Your task to perform on an android device: Turn on the flashlight Image 0: 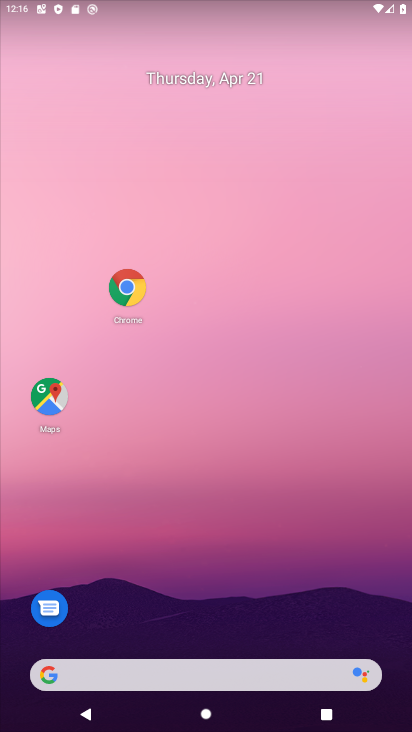
Step 0: drag from (308, 481) to (111, 69)
Your task to perform on an android device: Turn on the flashlight Image 1: 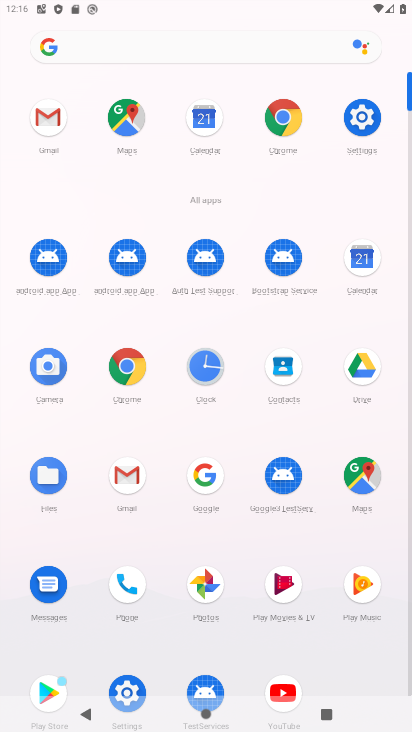
Step 1: click (356, 116)
Your task to perform on an android device: Turn on the flashlight Image 2: 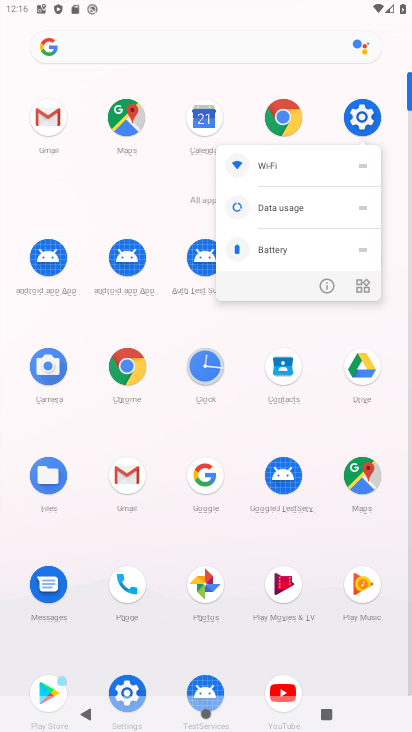
Step 2: click (359, 116)
Your task to perform on an android device: Turn on the flashlight Image 3: 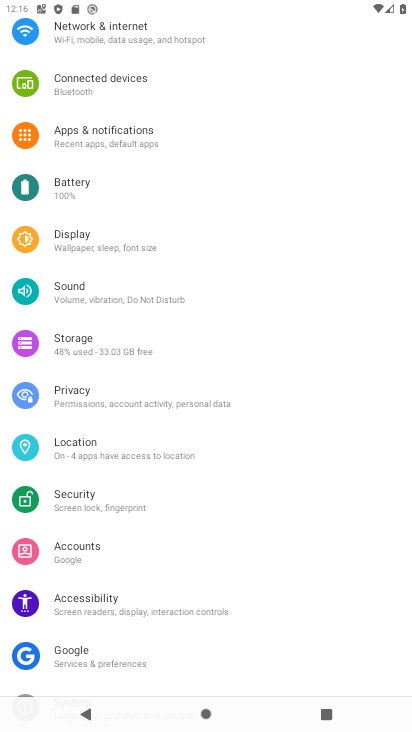
Step 3: drag from (139, 124) to (126, 367)
Your task to perform on an android device: Turn on the flashlight Image 4: 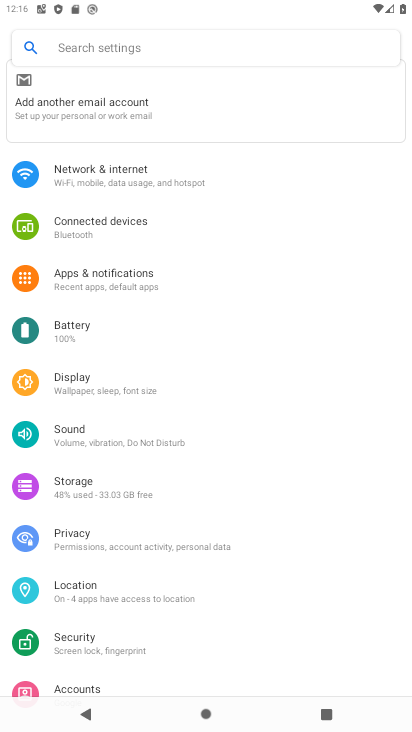
Step 4: click (171, 44)
Your task to perform on an android device: Turn on the flashlight Image 5: 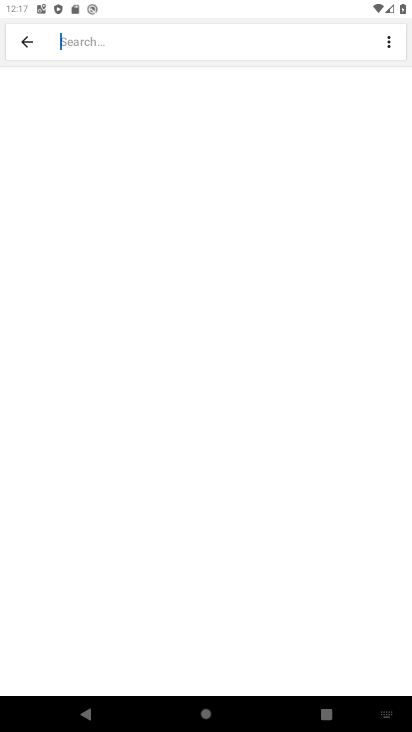
Step 5: type "flashlight"
Your task to perform on an android device: Turn on the flashlight Image 6: 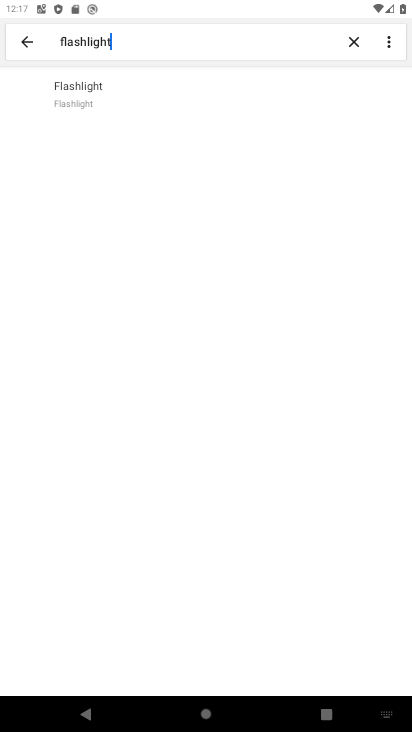
Step 6: click (98, 101)
Your task to perform on an android device: Turn on the flashlight Image 7: 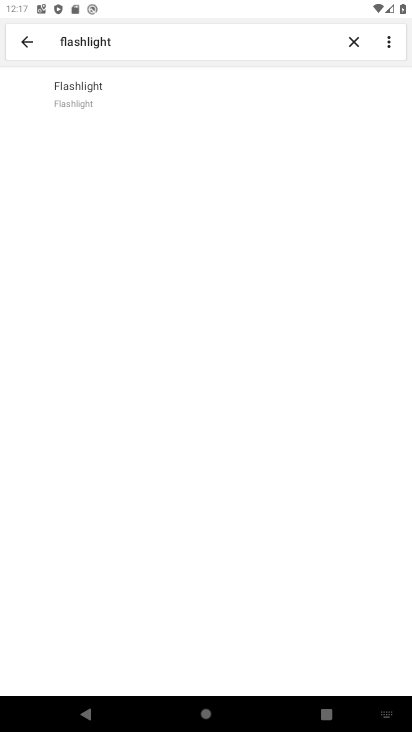
Step 7: click (101, 99)
Your task to perform on an android device: Turn on the flashlight Image 8: 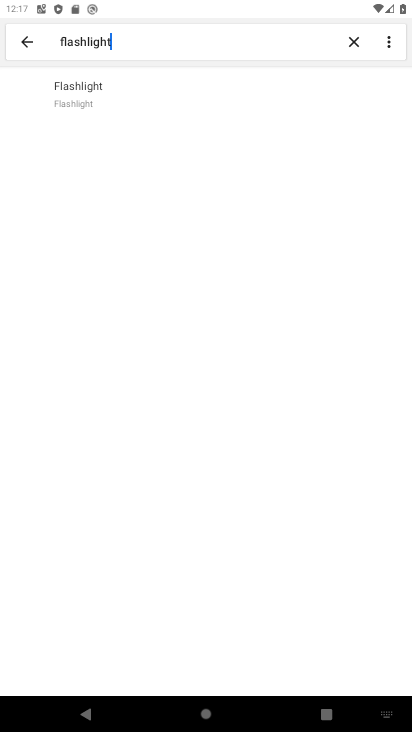
Step 8: task complete